Your task to perform on an android device: Check the weather Image 0: 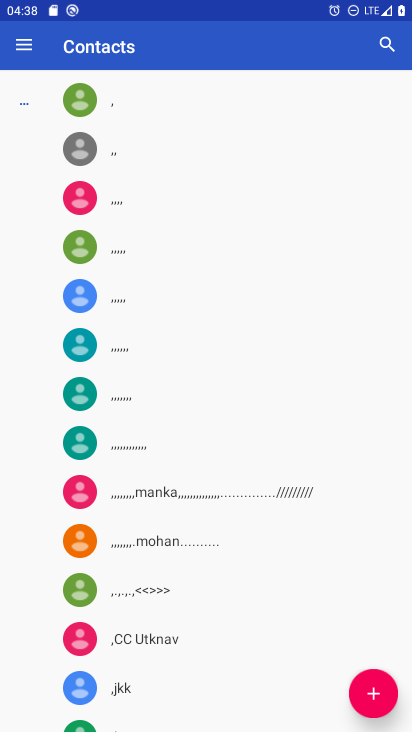
Step 0: press back button
Your task to perform on an android device: Check the weather Image 1: 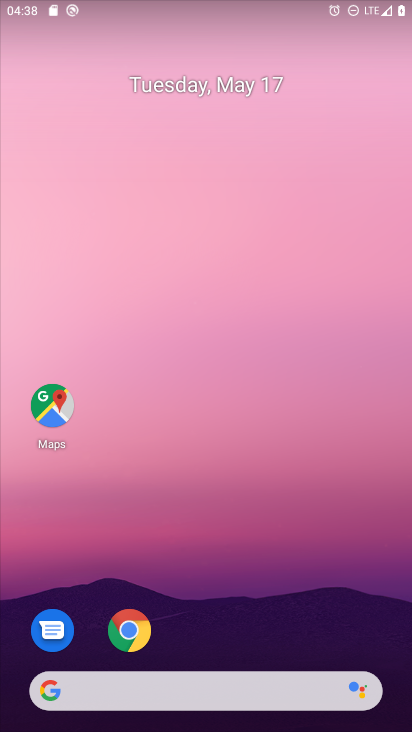
Step 1: click (154, 686)
Your task to perform on an android device: Check the weather Image 2: 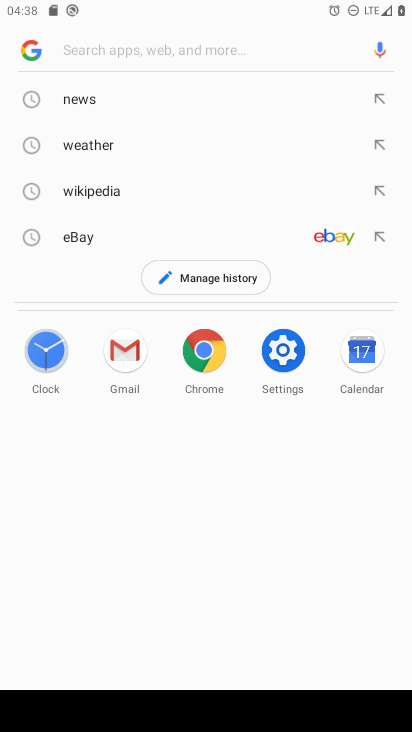
Step 2: click (95, 145)
Your task to perform on an android device: Check the weather Image 3: 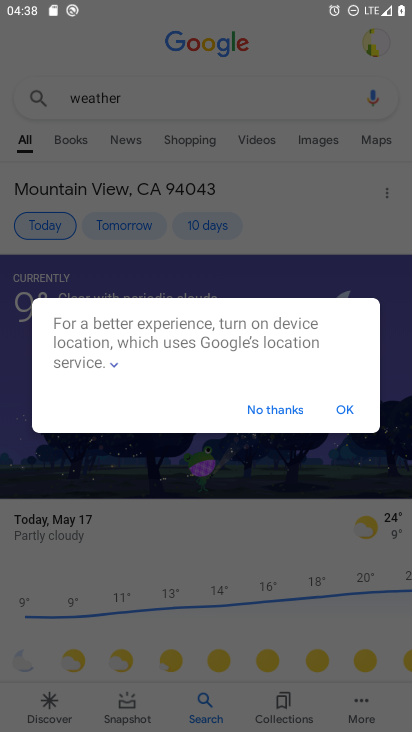
Step 3: click (336, 409)
Your task to perform on an android device: Check the weather Image 4: 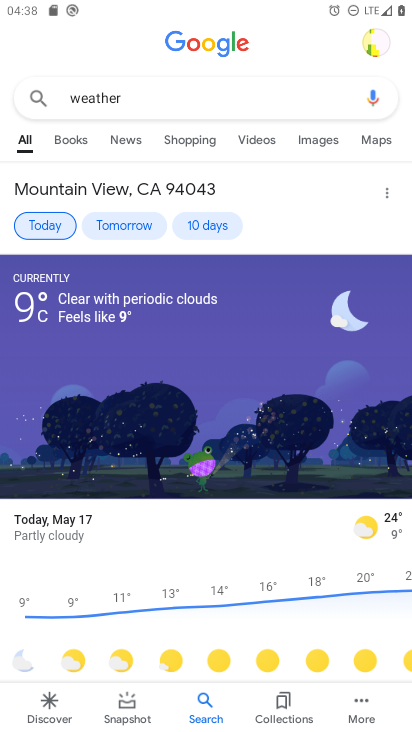
Step 4: task complete